Your task to perform on an android device: toggle location history Image 0: 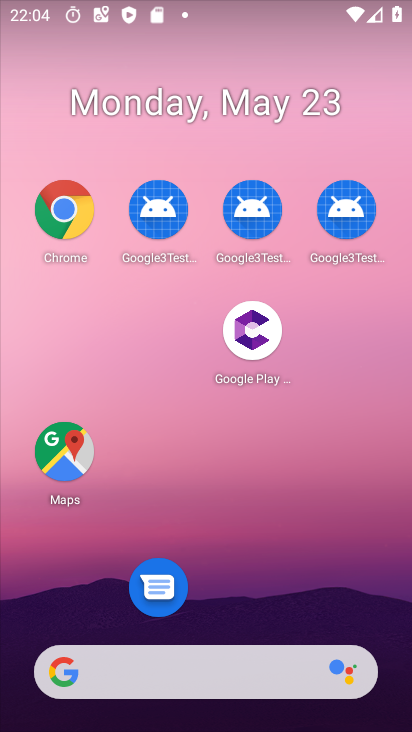
Step 0: drag from (289, 610) to (288, 86)
Your task to perform on an android device: toggle location history Image 1: 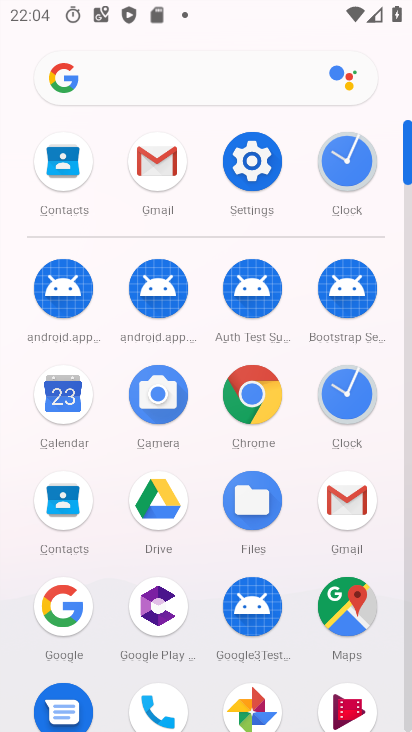
Step 1: click (246, 164)
Your task to perform on an android device: toggle location history Image 2: 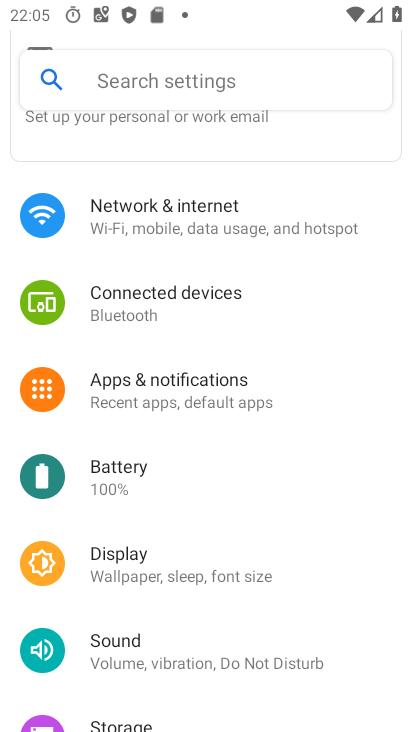
Step 2: drag from (285, 623) to (261, 230)
Your task to perform on an android device: toggle location history Image 3: 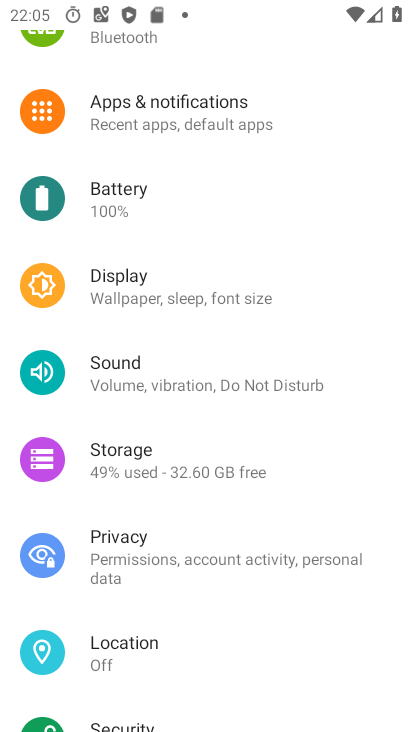
Step 3: click (152, 654)
Your task to perform on an android device: toggle location history Image 4: 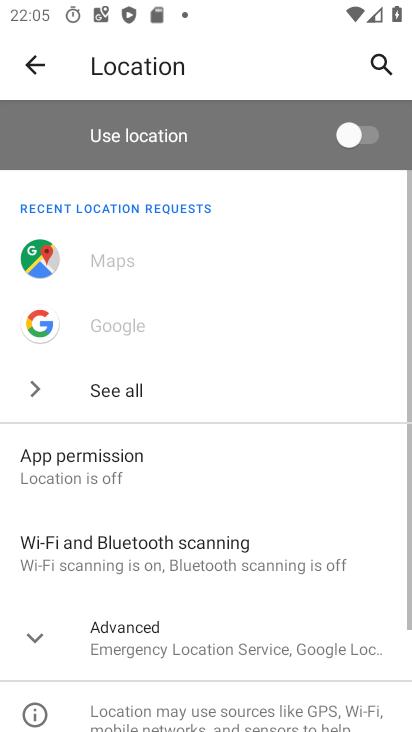
Step 4: drag from (313, 567) to (304, 313)
Your task to perform on an android device: toggle location history Image 5: 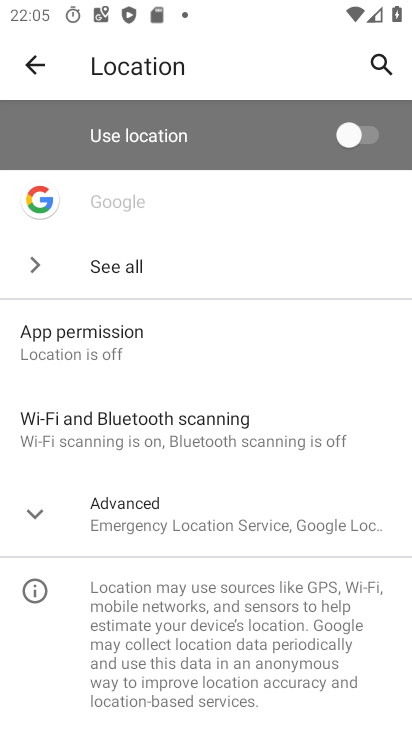
Step 5: click (232, 526)
Your task to perform on an android device: toggle location history Image 6: 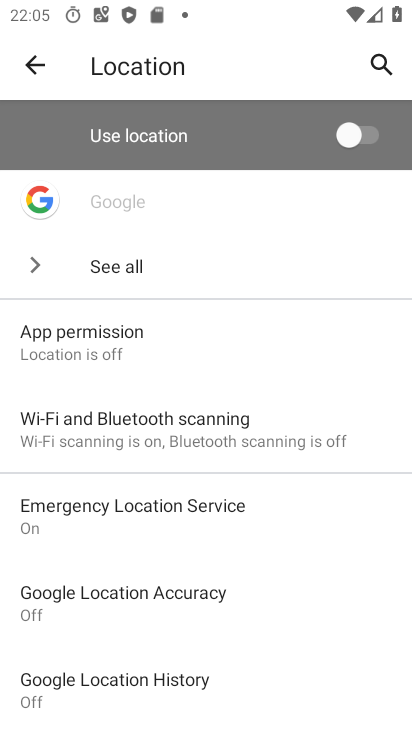
Step 6: click (163, 688)
Your task to perform on an android device: toggle location history Image 7: 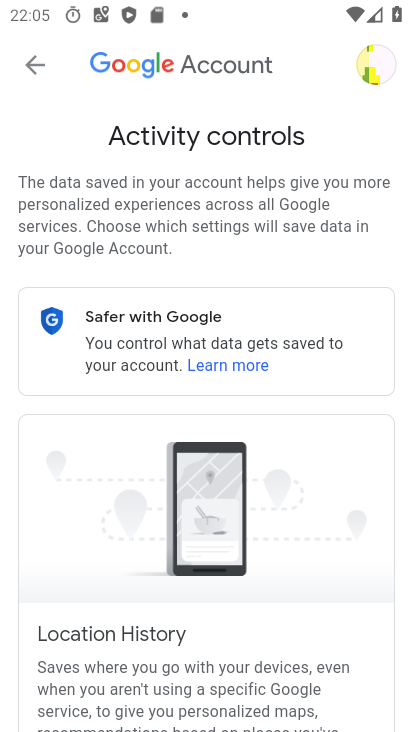
Step 7: drag from (338, 593) to (307, 283)
Your task to perform on an android device: toggle location history Image 8: 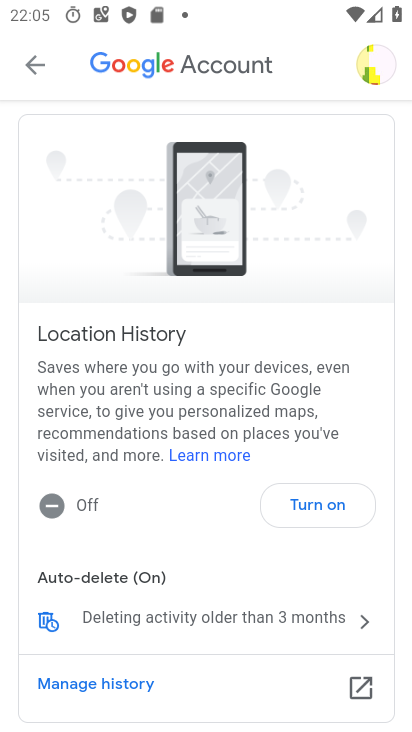
Step 8: click (326, 498)
Your task to perform on an android device: toggle location history Image 9: 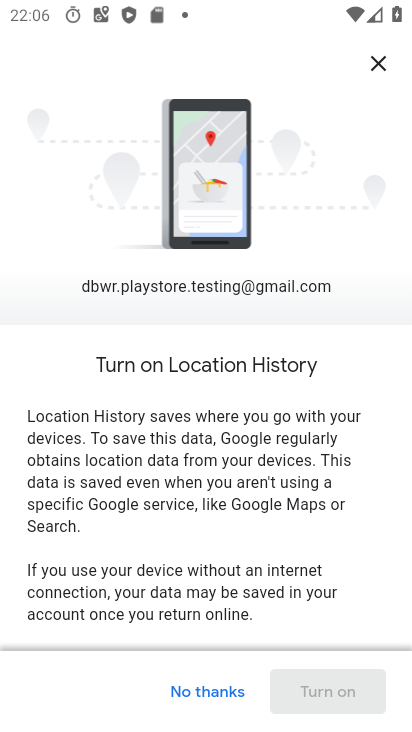
Step 9: drag from (300, 607) to (305, 179)
Your task to perform on an android device: toggle location history Image 10: 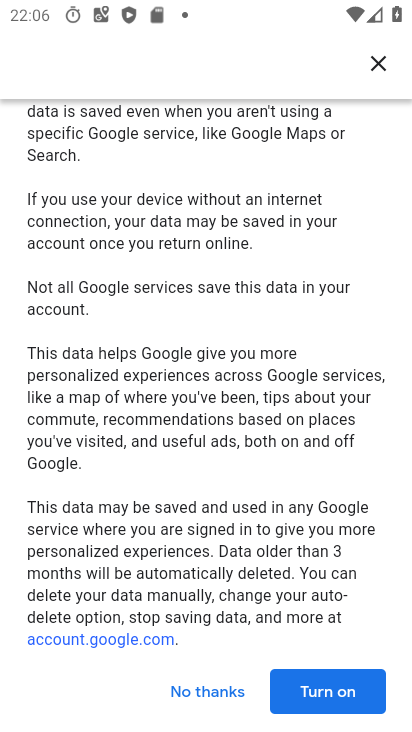
Step 10: click (316, 696)
Your task to perform on an android device: toggle location history Image 11: 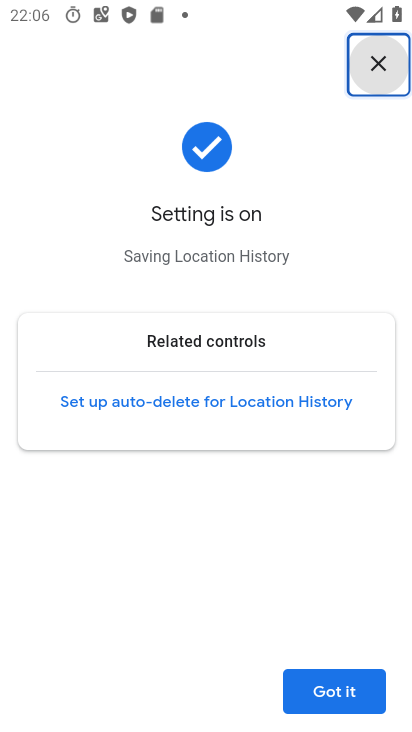
Step 11: click (351, 680)
Your task to perform on an android device: toggle location history Image 12: 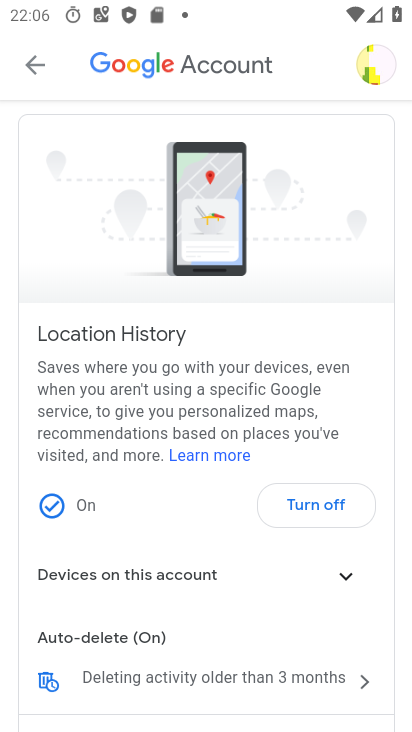
Step 12: task complete